Your task to perform on an android device: empty trash in the gmail app Image 0: 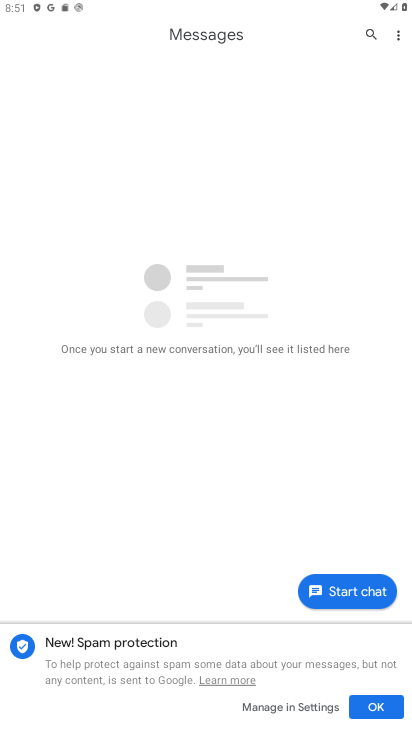
Step 0: press home button
Your task to perform on an android device: empty trash in the gmail app Image 1: 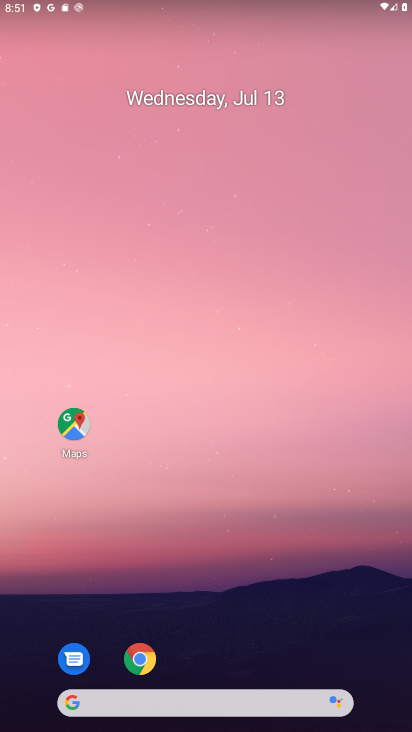
Step 1: click (270, 640)
Your task to perform on an android device: empty trash in the gmail app Image 2: 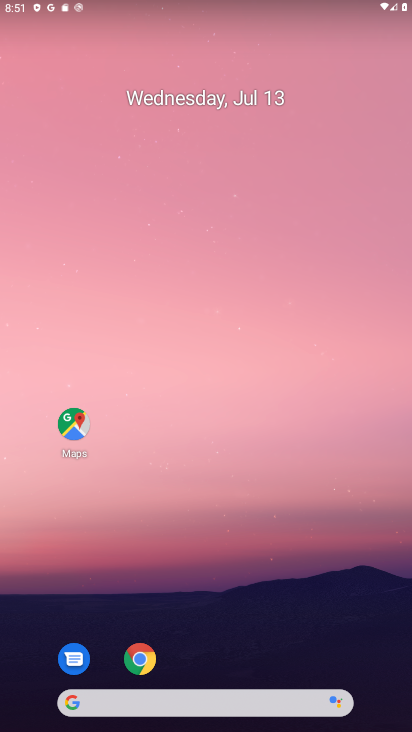
Step 2: drag from (270, 640) to (259, 156)
Your task to perform on an android device: empty trash in the gmail app Image 3: 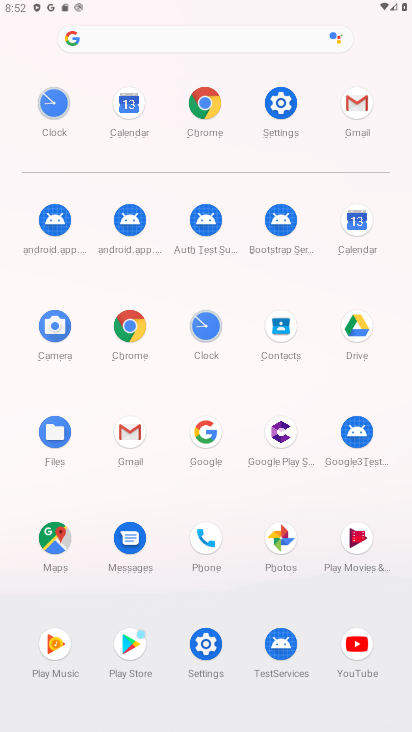
Step 3: click (364, 114)
Your task to perform on an android device: empty trash in the gmail app Image 4: 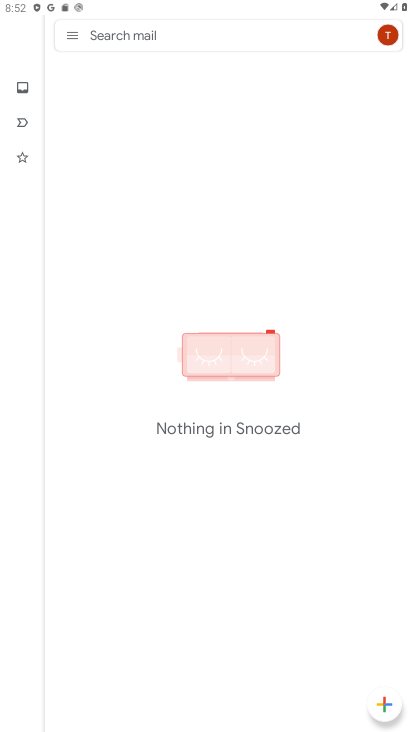
Step 4: click (76, 34)
Your task to perform on an android device: empty trash in the gmail app Image 5: 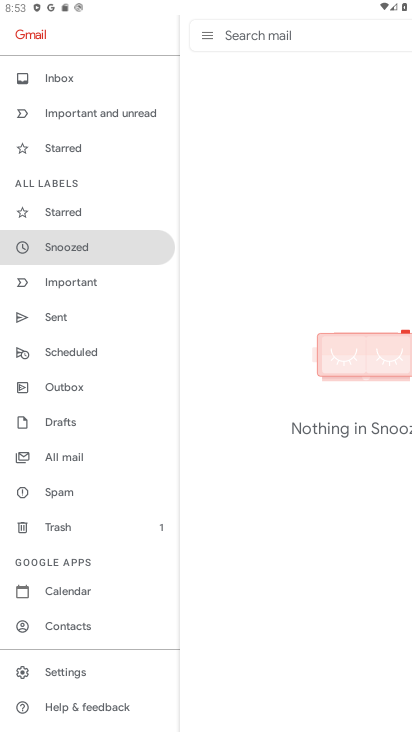
Step 5: task complete